Your task to perform on an android device: Search for vegetarian restaurants on Maps Image 0: 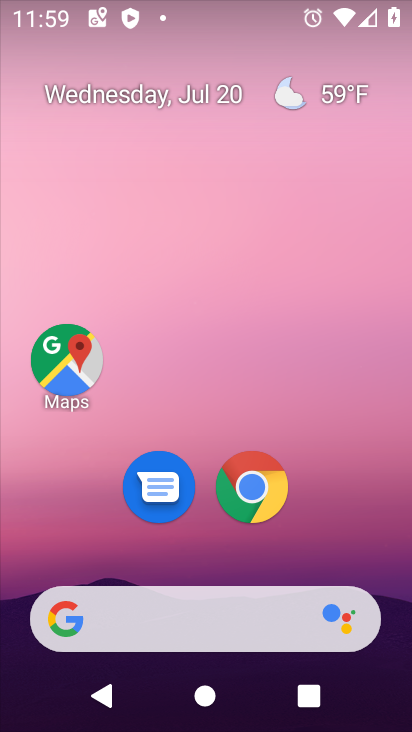
Step 0: drag from (346, 535) to (339, 162)
Your task to perform on an android device: Search for vegetarian restaurants on Maps Image 1: 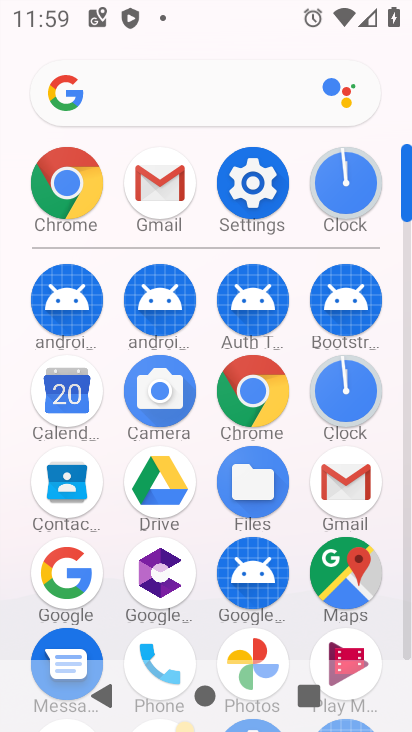
Step 1: click (358, 569)
Your task to perform on an android device: Search for vegetarian restaurants on Maps Image 2: 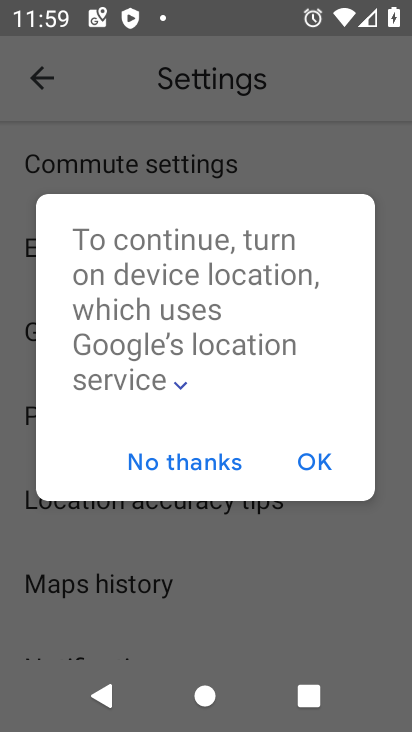
Step 2: press back button
Your task to perform on an android device: Search for vegetarian restaurants on Maps Image 3: 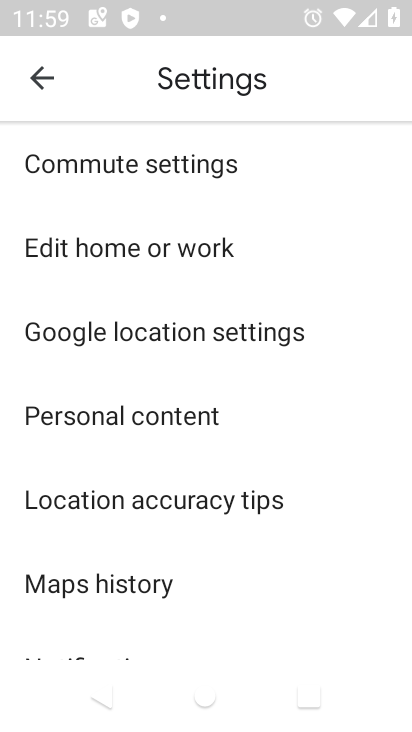
Step 3: press back button
Your task to perform on an android device: Search for vegetarian restaurants on Maps Image 4: 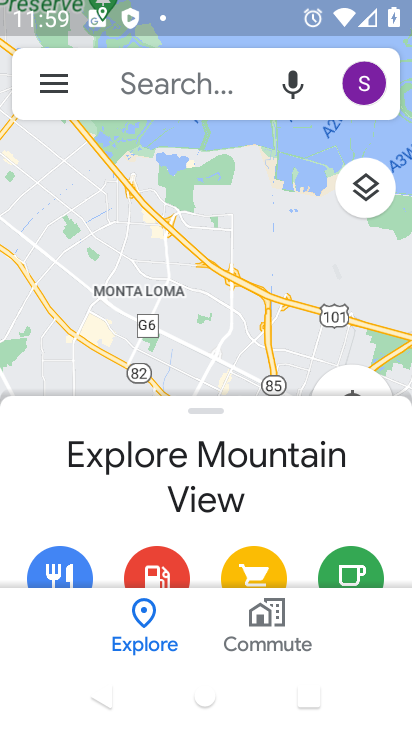
Step 4: click (225, 98)
Your task to perform on an android device: Search for vegetarian restaurants on Maps Image 5: 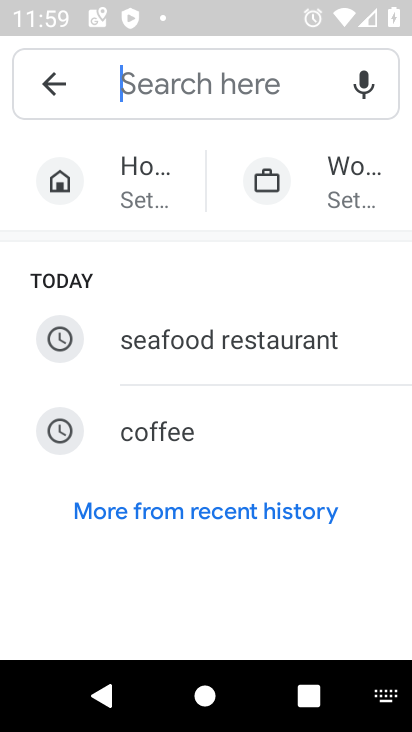
Step 5: type "vegetrain restaurans"
Your task to perform on an android device: Search for vegetarian restaurants on Maps Image 6: 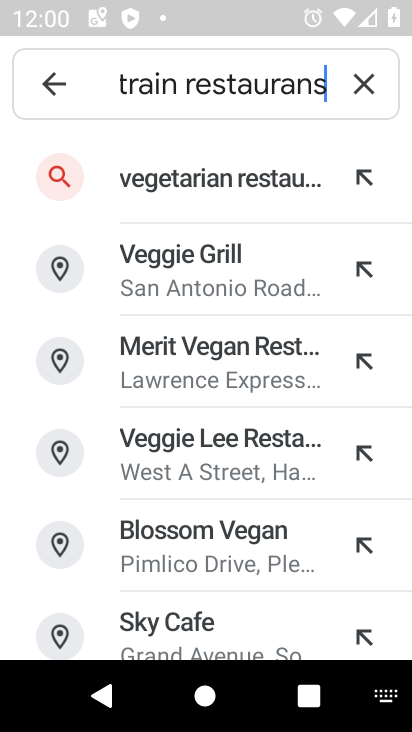
Step 6: click (266, 193)
Your task to perform on an android device: Search for vegetarian restaurants on Maps Image 7: 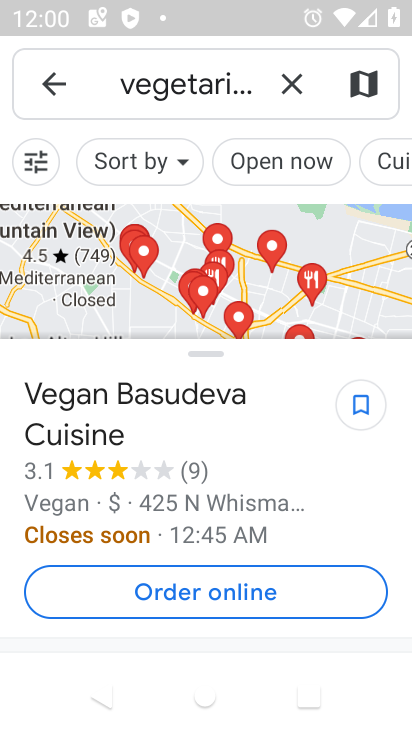
Step 7: task complete